Your task to perform on an android device: Open Google Image 0: 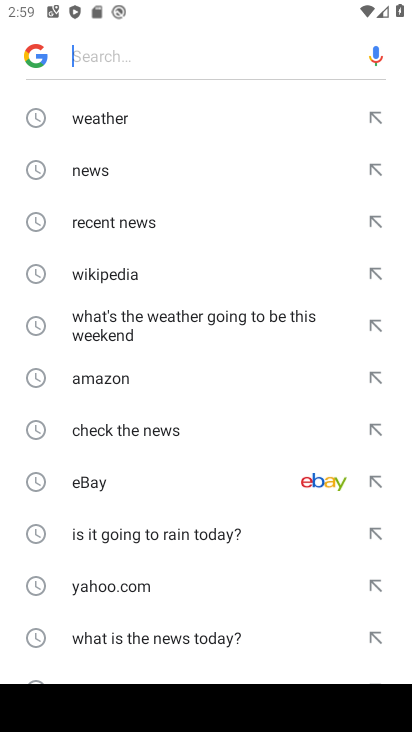
Step 0: press home button
Your task to perform on an android device: Open Google Image 1: 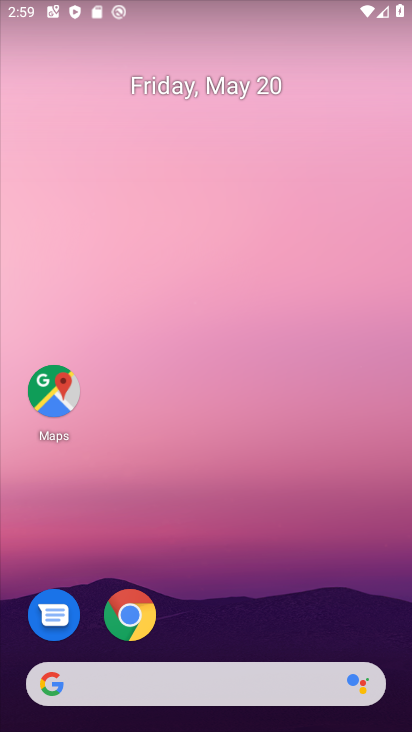
Step 1: drag from (206, 608) to (214, 192)
Your task to perform on an android device: Open Google Image 2: 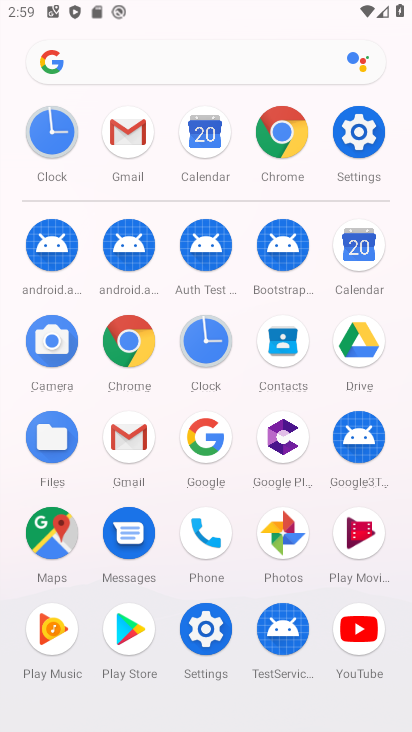
Step 2: click (200, 438)
Your task to perform on an android device: Open Google Image 3: 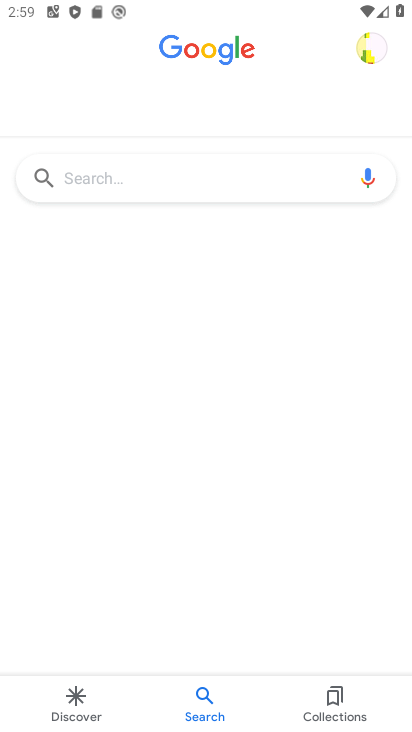
Step 3: task complete